Your task to perform on an android device: find snoozed emails in the gmail app Image 0: 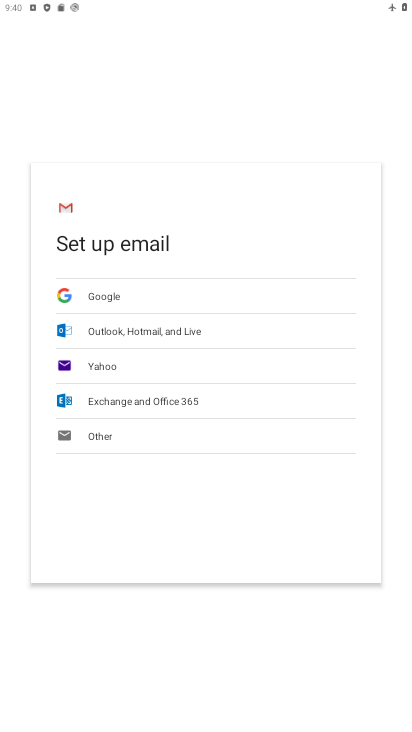
Step 0: press home button
Your task to perform on an android device: find snoozed emails in the gmail app Image 1: 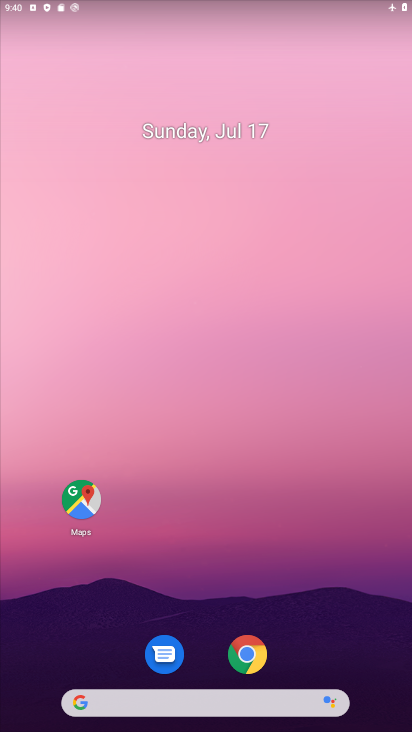
Step 1: drag from (207, 617) to (217, 22)
Your task to perform on an android device: find snoozed emails in the gmail app Image 2: 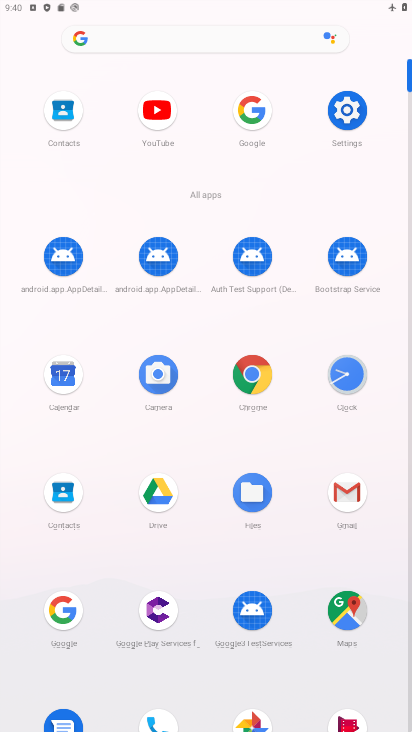
Step 2: click (335, 494)
Your task to perform on an android device: find snoozed emails in the gmail app Image 3: 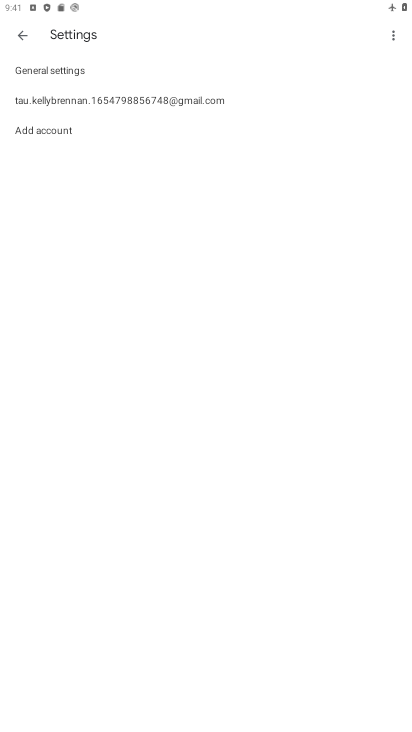
Step 3: click (13, 38)
Your task to perform on an android device: find snoozed emails in the gmail app Image 4: 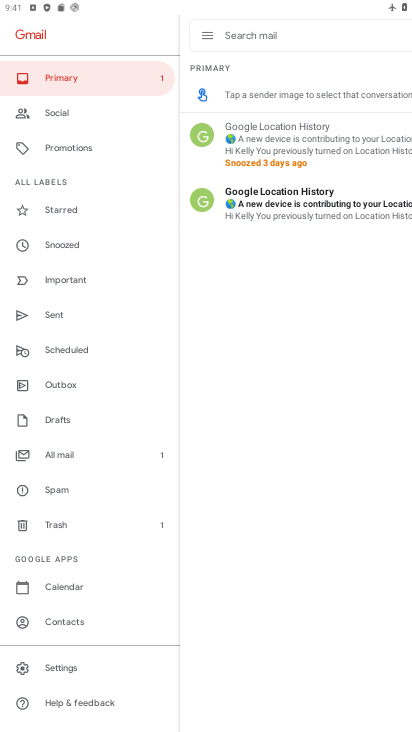
Step 4: click (88, 239)
Your task to perform on an android device: find snoozed emails in the gmail app Image 5: 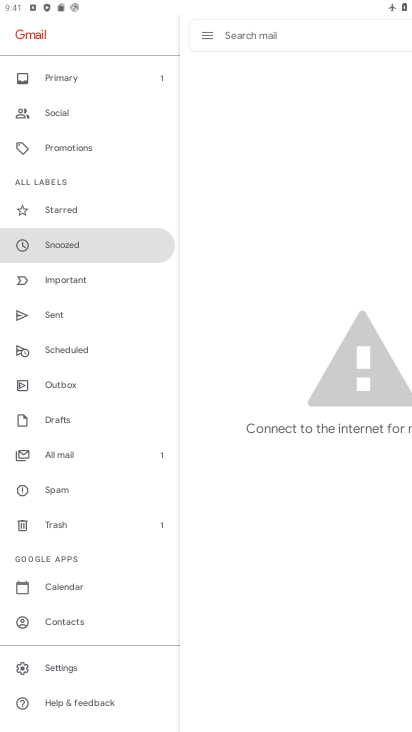
Step 5: task complete